Your task to perform on an android device: set the timer Image 0: 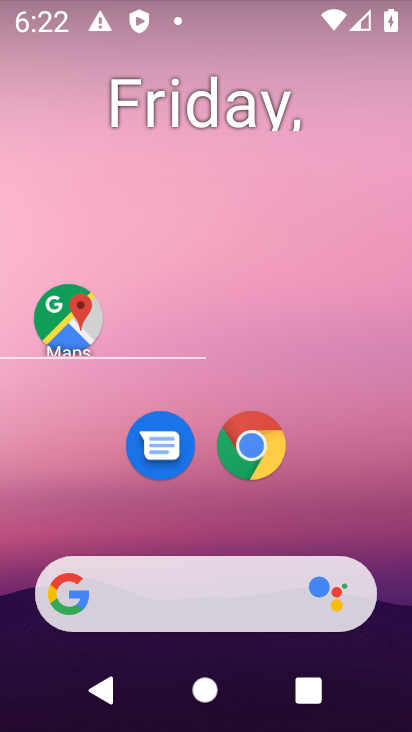
Step 0: click (249, 101)
Your task to perform on an android device: set the timer Image 1: 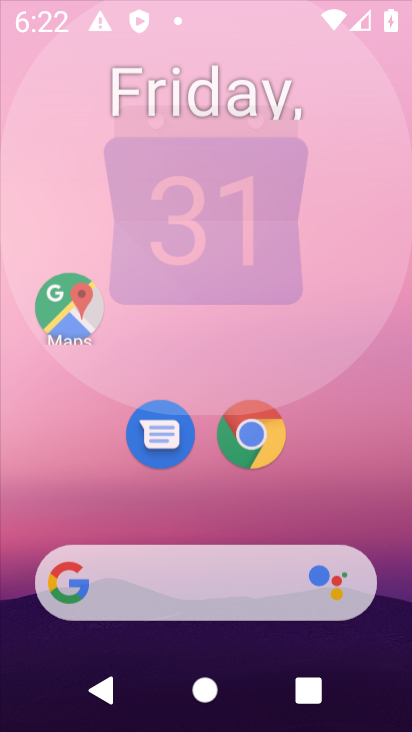
Step 1: drag from (180, 530) to (212, 155)
Your task to perform on an android device: set the timer Image 2: 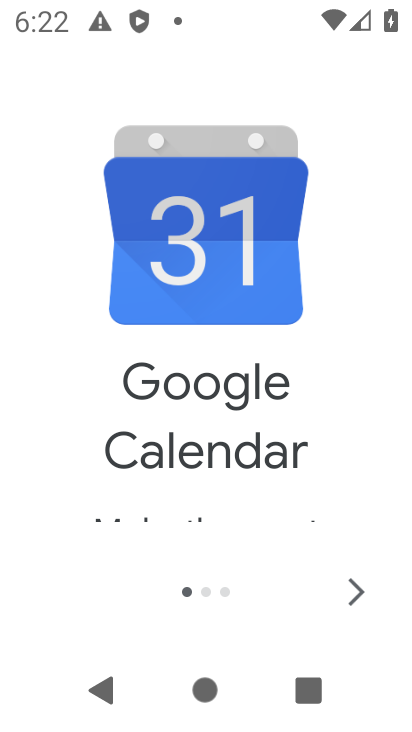
Step 2: press home button
Your task to perform on an android device: set the timer Image 3: 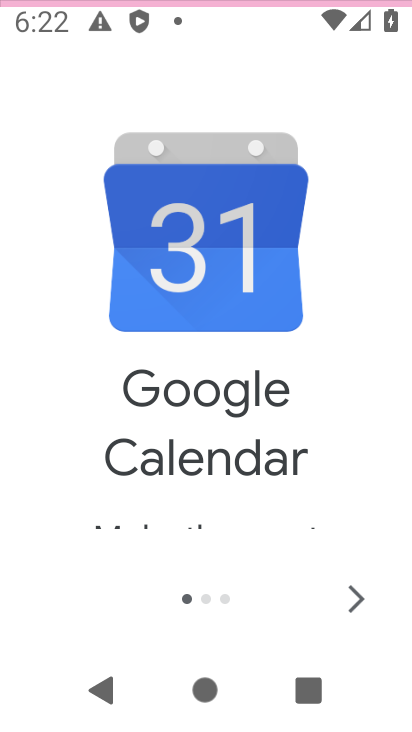
Step 3: press home button
Your task to perform on an android device: set the timer Image 4: 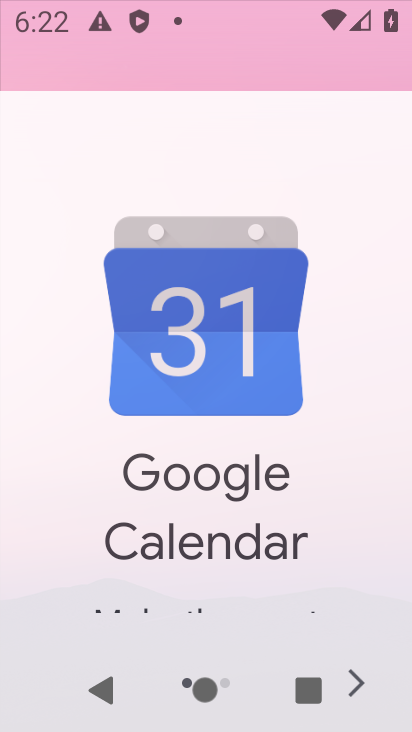
Step 4: drag from (167, 455) to (279, 136)
Your task to perform on an android device: set the timer Image 5: 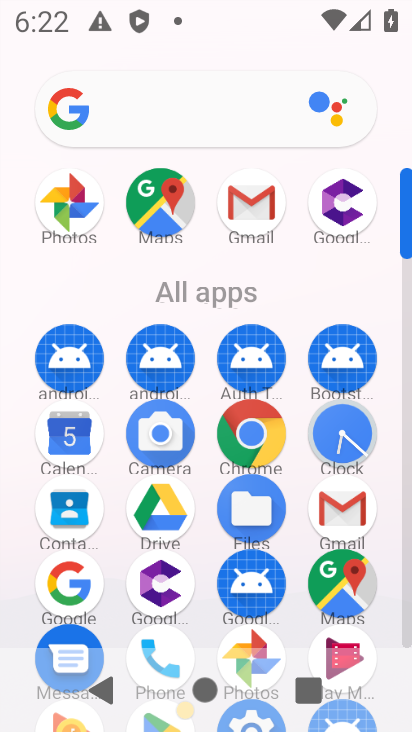
Step 5: drag from (199, 548) to (202, 212)
Your task to perform on an android device: set the timer Image 6: 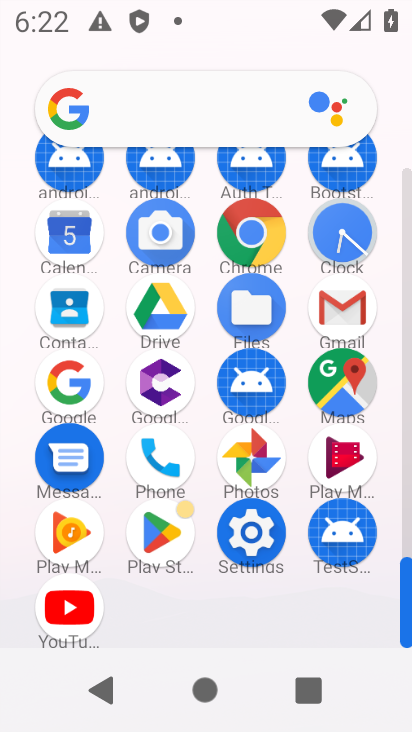
Step 6: click (263, 533)
Your task to perform on an android device: set the timer Image 7: 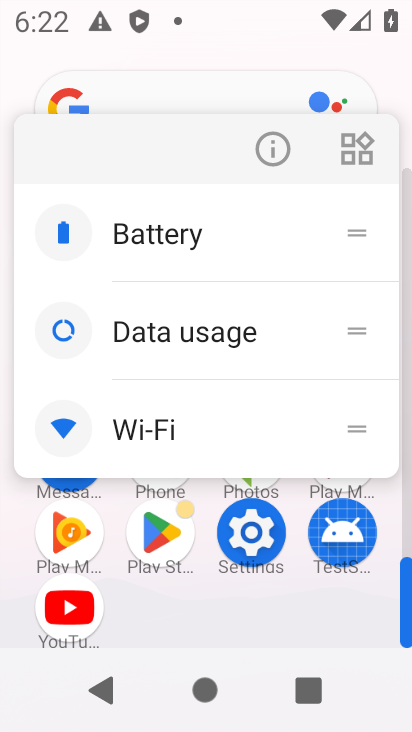
Step 7: click (252, 143)
Your task to perform on an android device: set the timer Image 8: 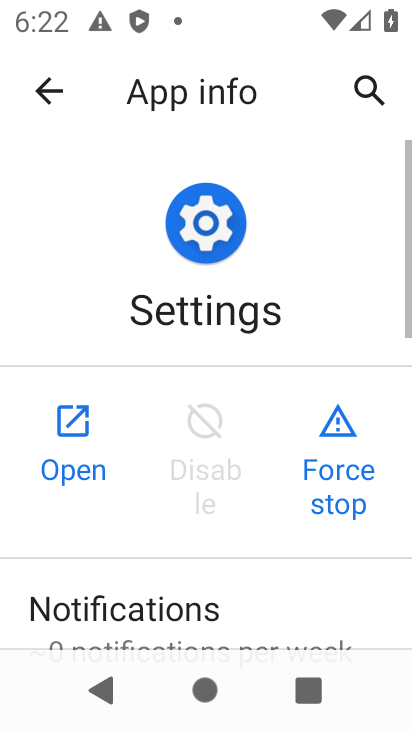
Step 8: click (82, 418)
Your task to perform on an android device: set the timer Image 9: 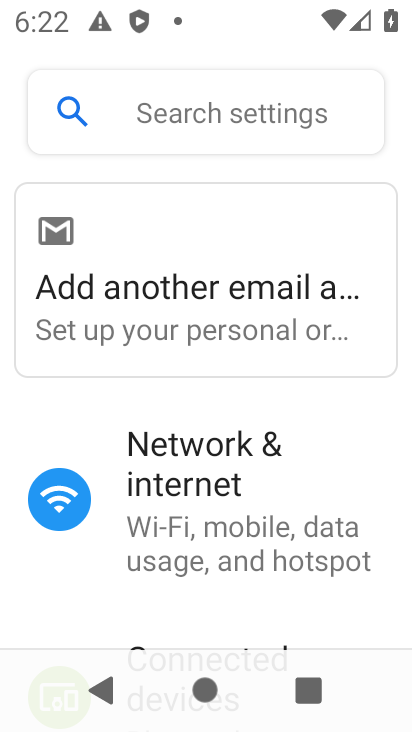
Step 9: press home button
Your task to perform on an android device: set the timer Image 10: 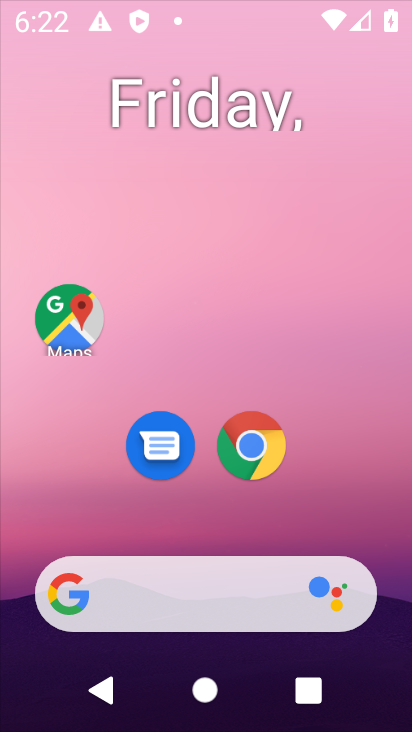
Step 10: drag from (198, 591) to (204, 331)
Your task to perform on an android device: set the timer Image 11: 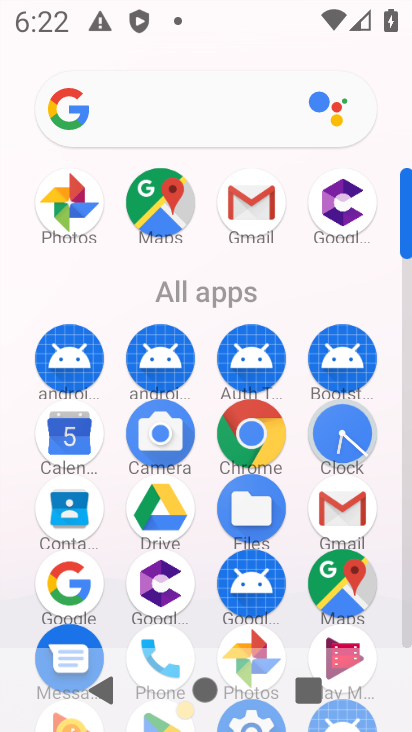
Step 11: drag from (195, 548) to (237, 278)
Your task to perform on an android device: set the timer Image 12: 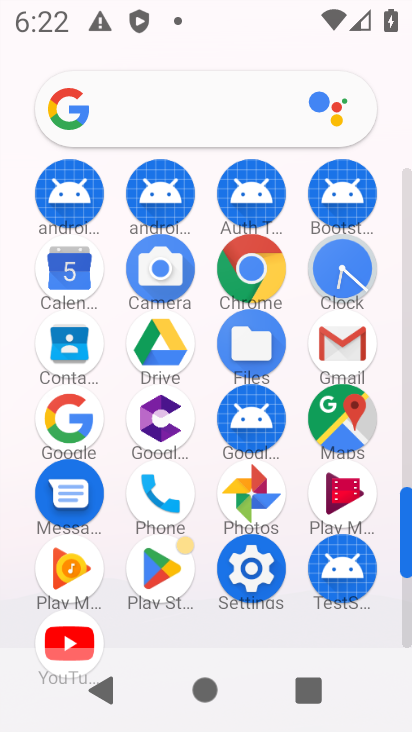
Step 12: click (342, 272)
Your task to perform on an android device: set the timer Image 13: 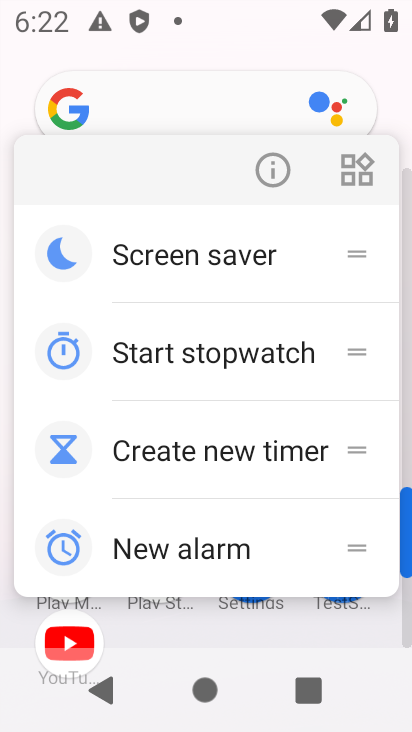
Step 13: click (265, 173)
Your task to perform on an android device: set the timer Image 14: 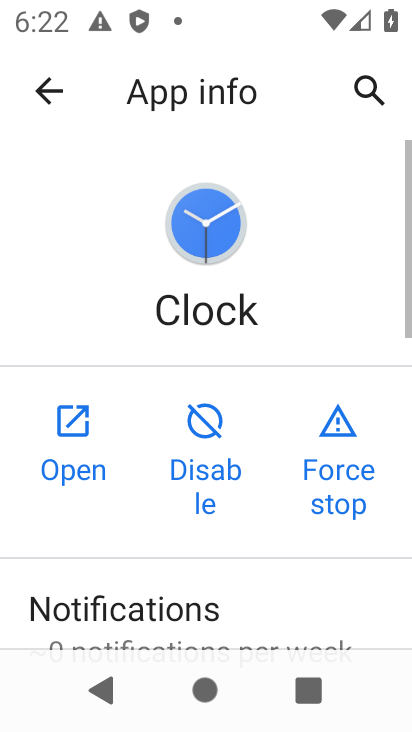
Step 14: click (78, 419)
Your task to perform on an android device: set the timer Image 15: 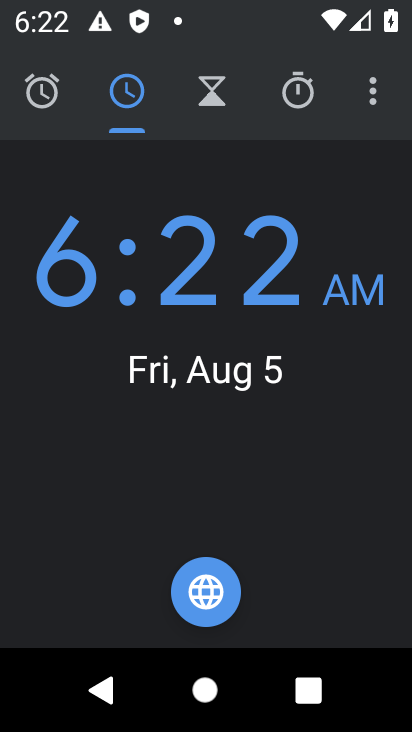
Step 15: click (211, 83)
Your task to perform on an android device: set the timer Image 16: 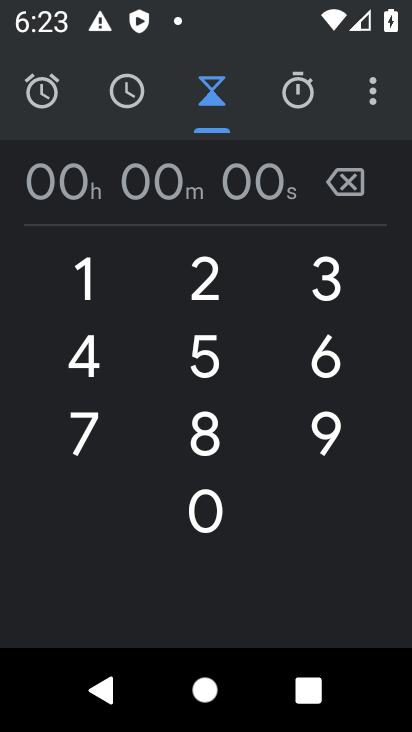
Step 16: click (218, 286)
Your task to perform on an android device: set the timer Image 17: 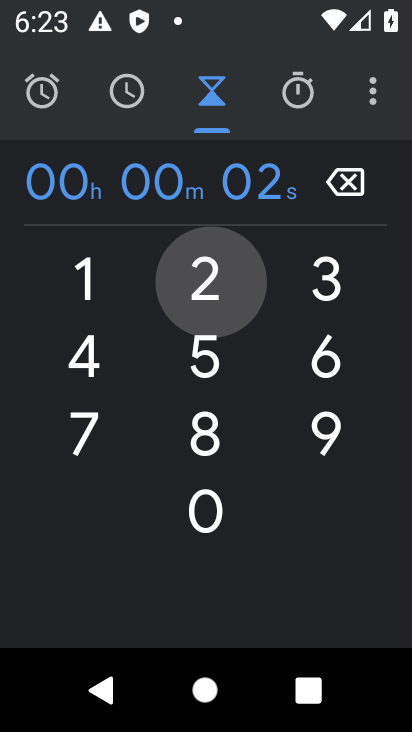
Step 17: drag from (329, 278) to (213, 348)
Your task to perform on an android device: set the timer Image 18: 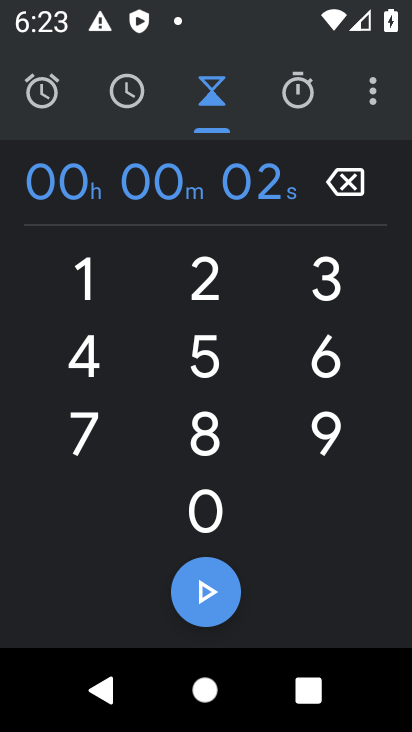
Step 18: click (203, 608)
Your task to perform on an android device: set the timer Image 19: 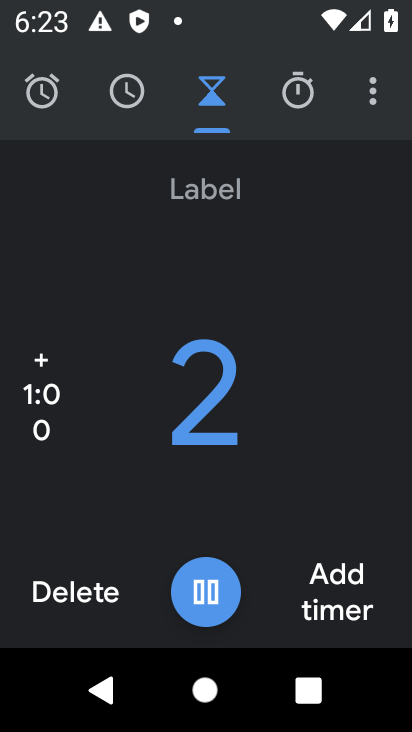
Step 19: task complete